Your task to perform on an android device: open app "Google Maps" (install if not already installed) Image 0: 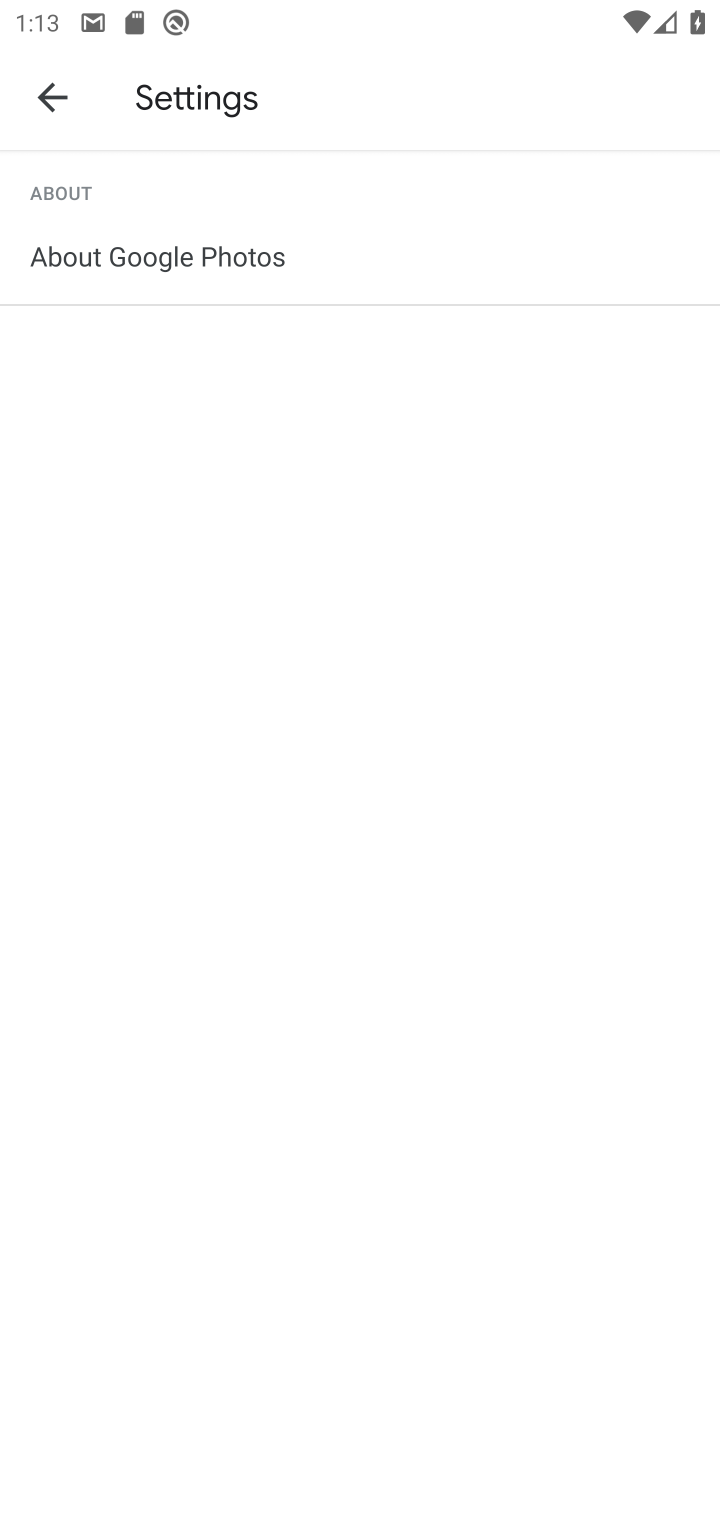
Step 0: press home button
Your task to perform on an android device: open app "Google Maps" (install if not already installed) Image 1: 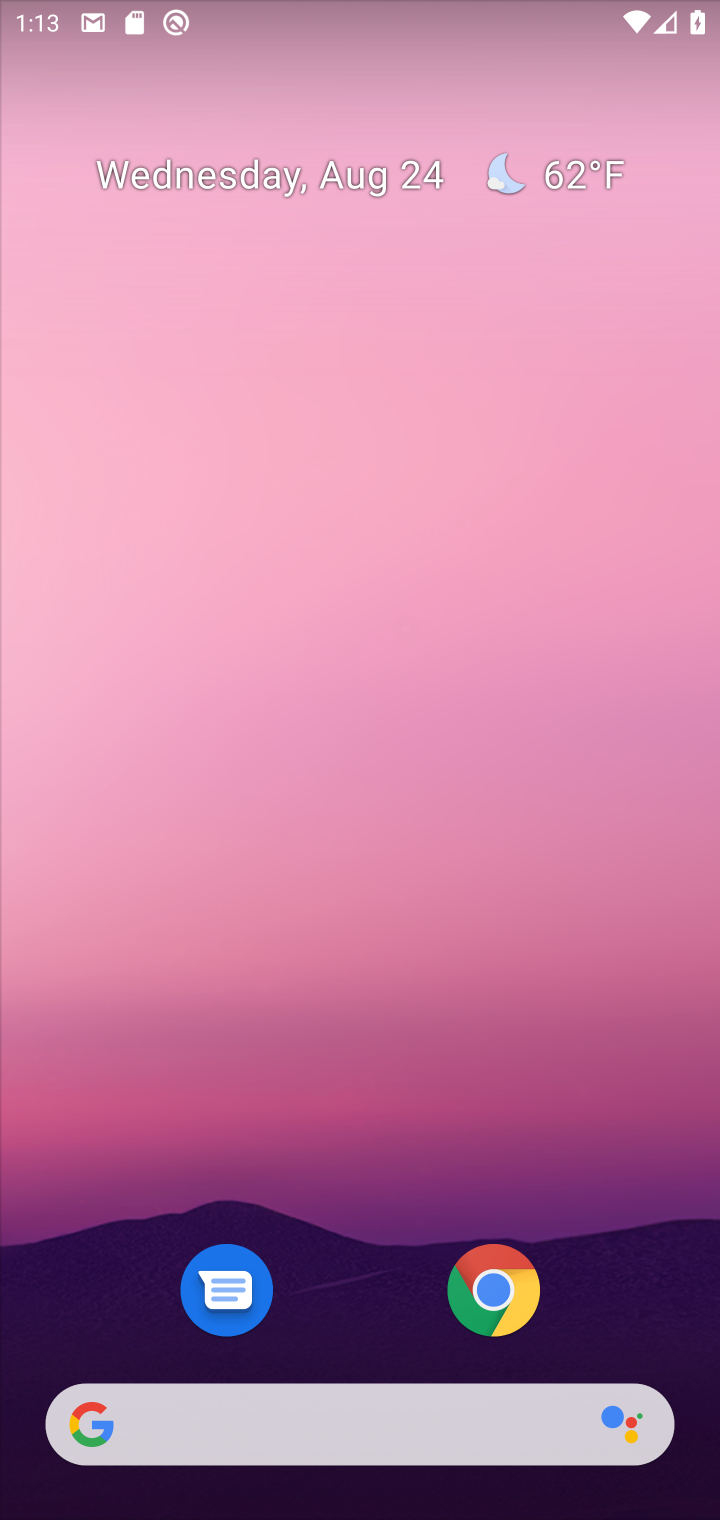
Step 1: click (417, 431)
Your task to perform on an android device: open app "Google Maps" (install if not already installed) Image 2: 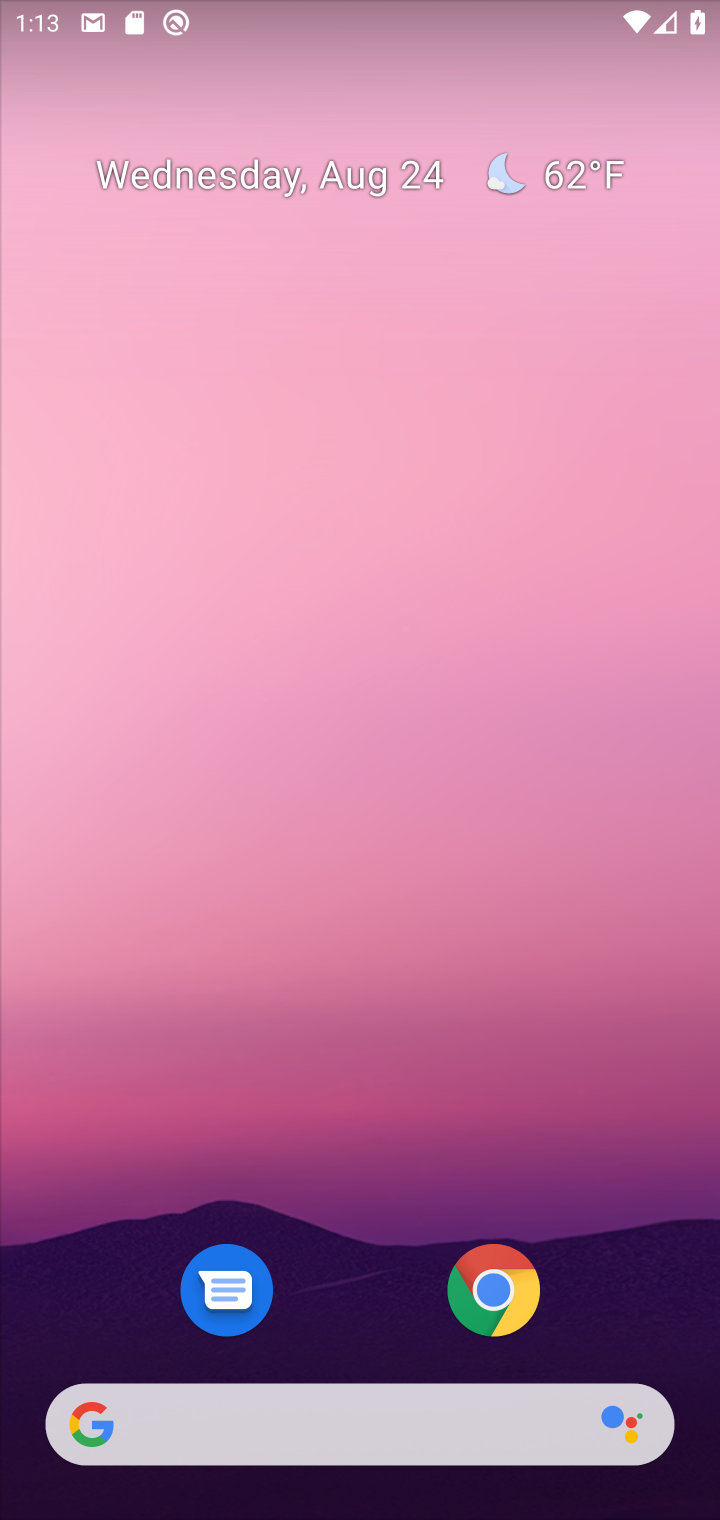
Step 2: drag from (374, 915) to (341, 204)
Your task to perform on an android device: open app "Google Maps" (install if not already installed) Image 3: 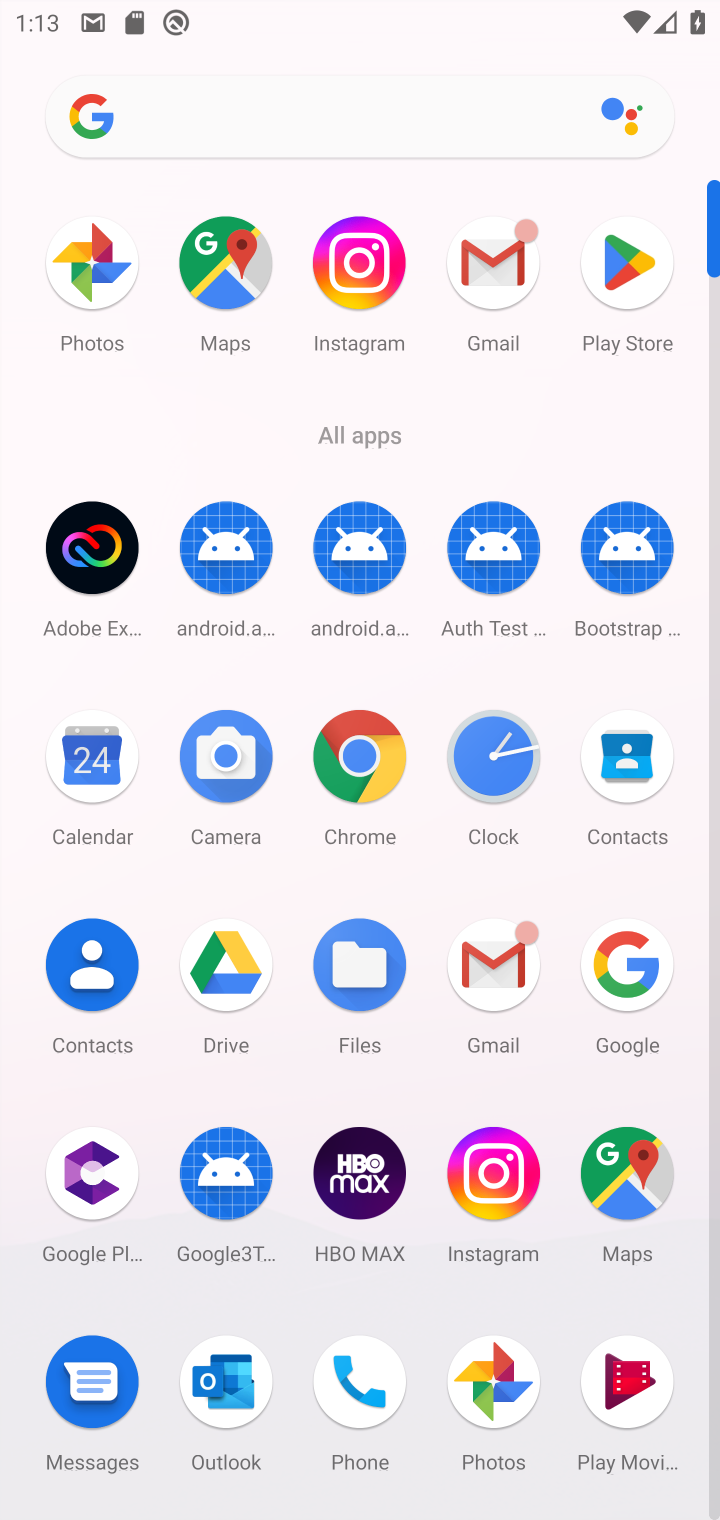
Step 3: click (619, 277)
Your task to perform on an android device: open app "Google Maps" (install if not already installed) Image 4: 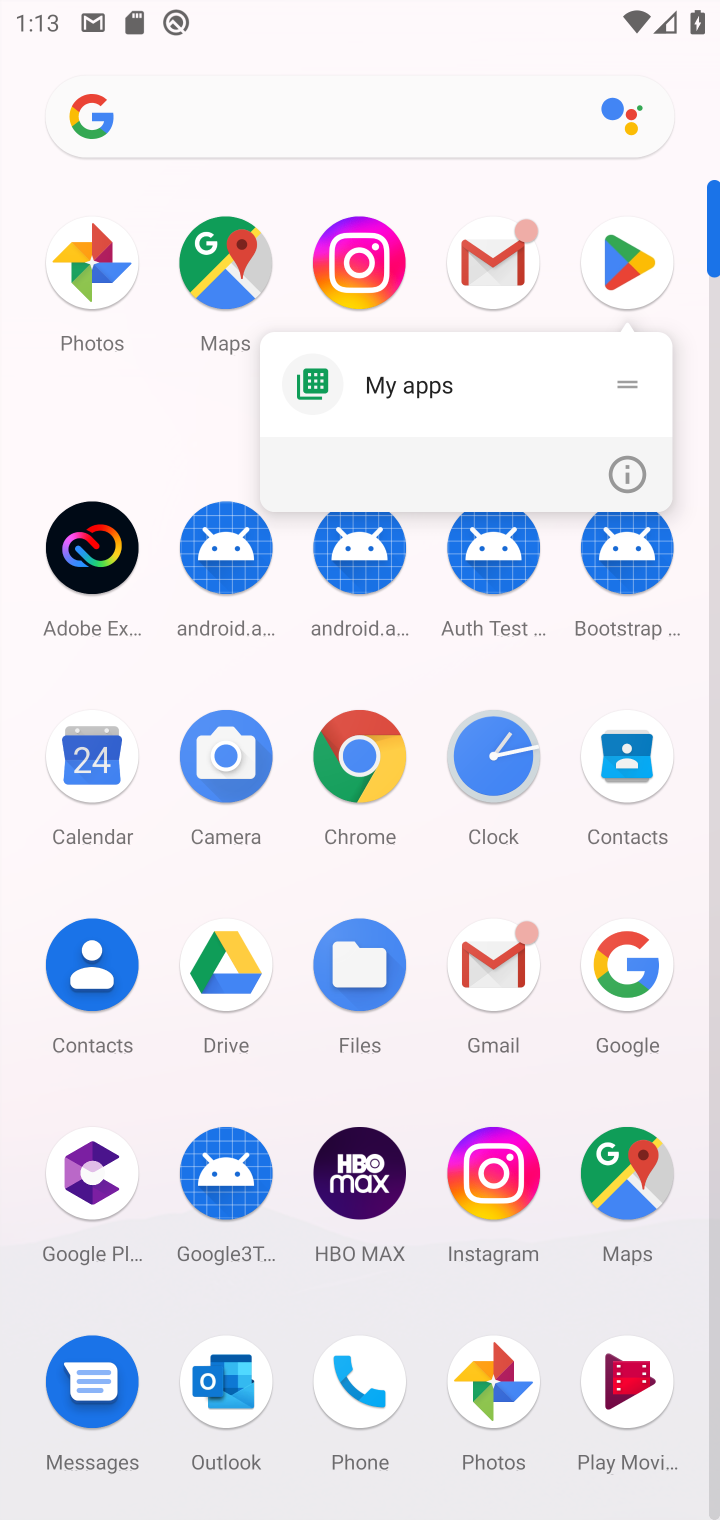
Step 4: click (619, 257)
Your task to perform on an android device: open app "Google Maps" (install if not already installed) Image 5: 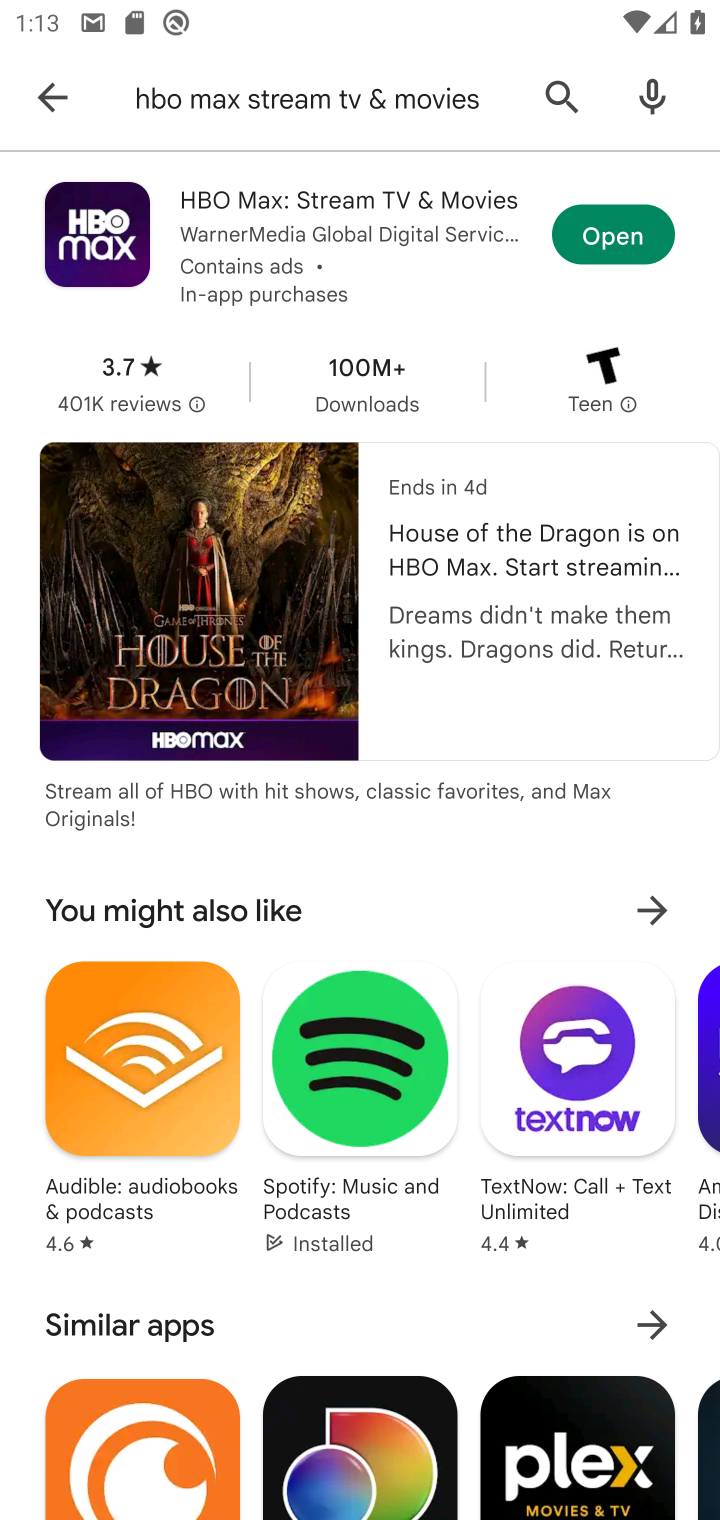
Step 5: click (50, 91)
Your task to perform on an android device: open app "Google Maps" (install if not already installed) Image 6: 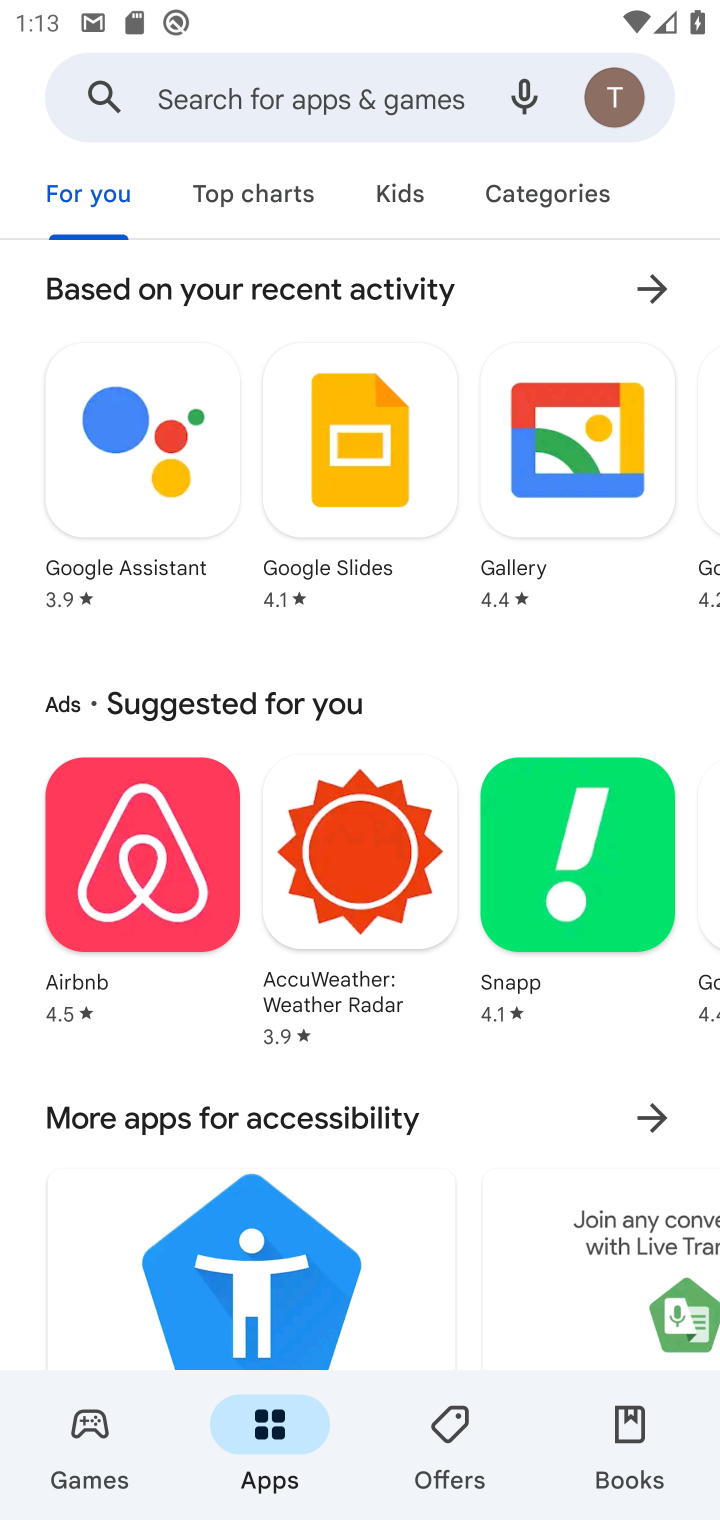
Step 6: click (250, 93)
Your task to perform on an android device: open app "Google Maps" (install if not already installed) Image 7: 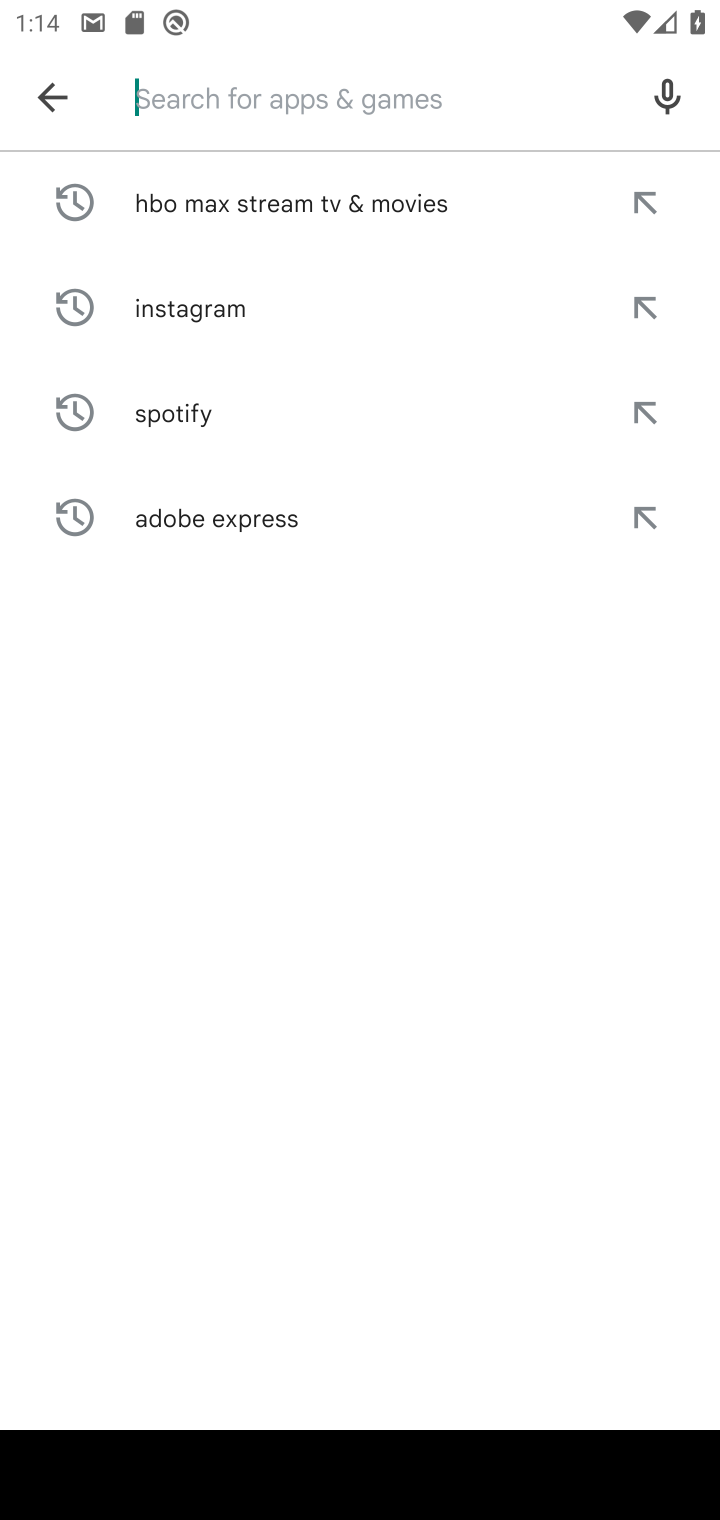
Step 7: type "Google Maps"
Your task to perform on an android device: open app "Google Maps" (install if not already installed) Image 8: 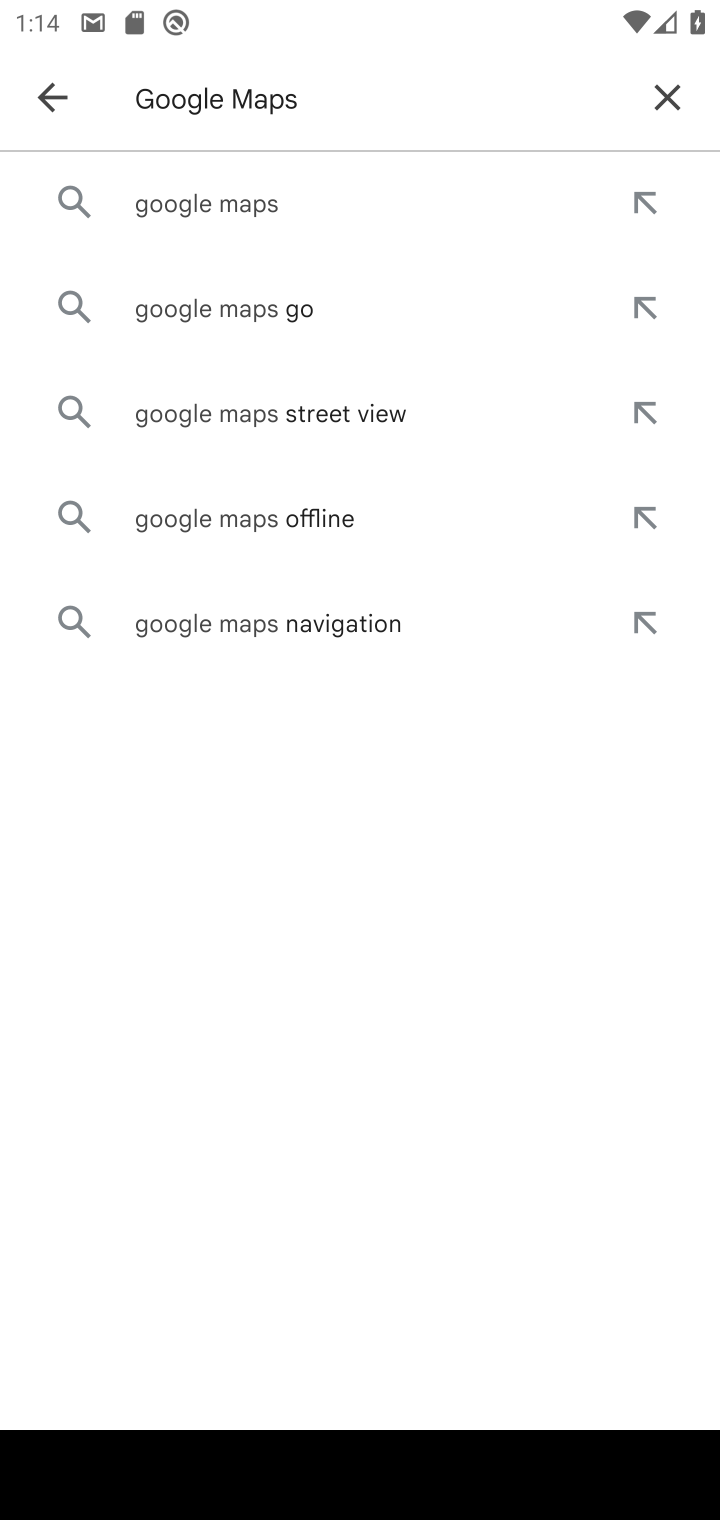
Step 8: click (197, 207)
Your task to perform on an android device: open app "Google Maps" (install if not already installed) Image 9: 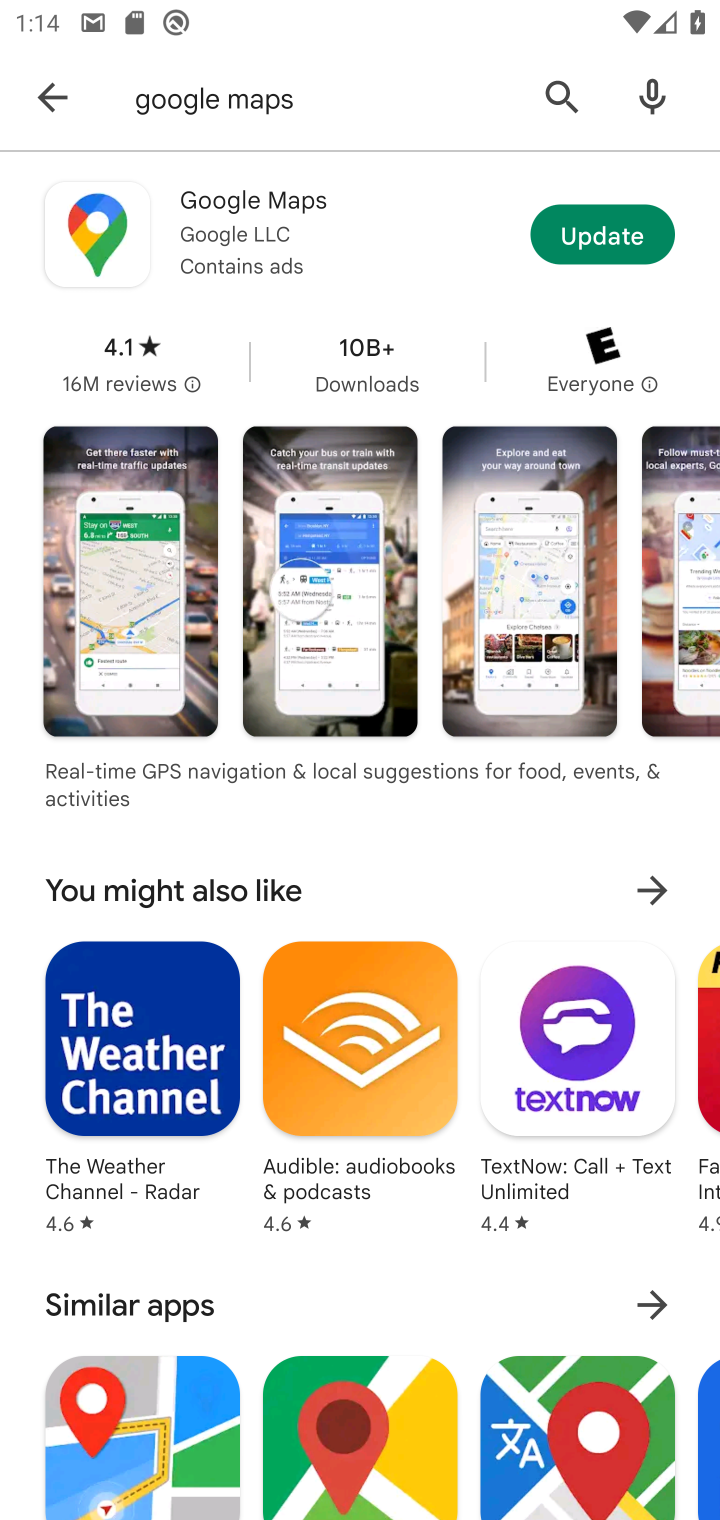
Step 9: click (590, 234)
Your task to perform on an android device: open app "Google Maps" (install if not already installed) Image 10: 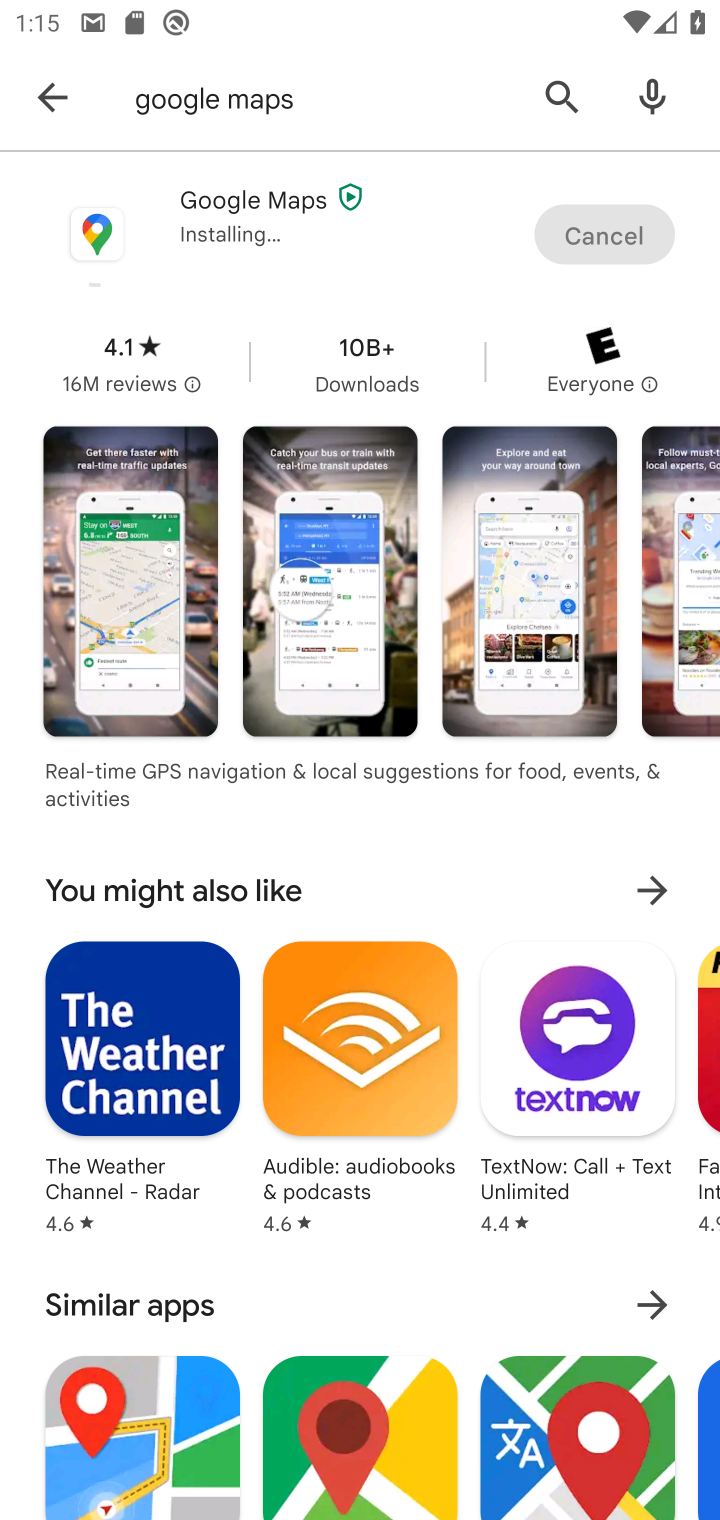
Step 10: click (334, 282)
Your task to perform on an android device: open app "Google Maps" (install if not already installed) Image 11: 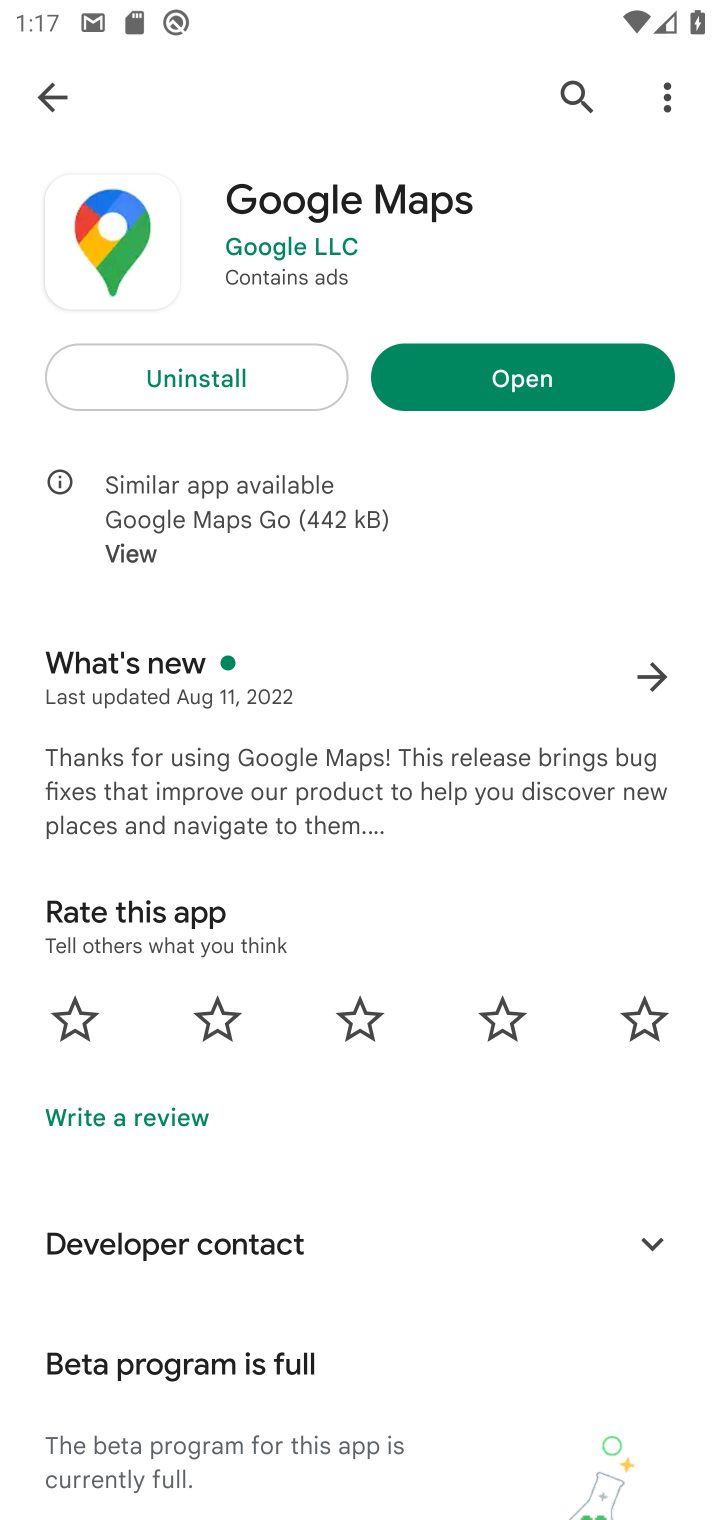
Step 11: click (517, 400)
Your task to perform on an android device: open app "Google Maps" (install if not already installed) Image 12: 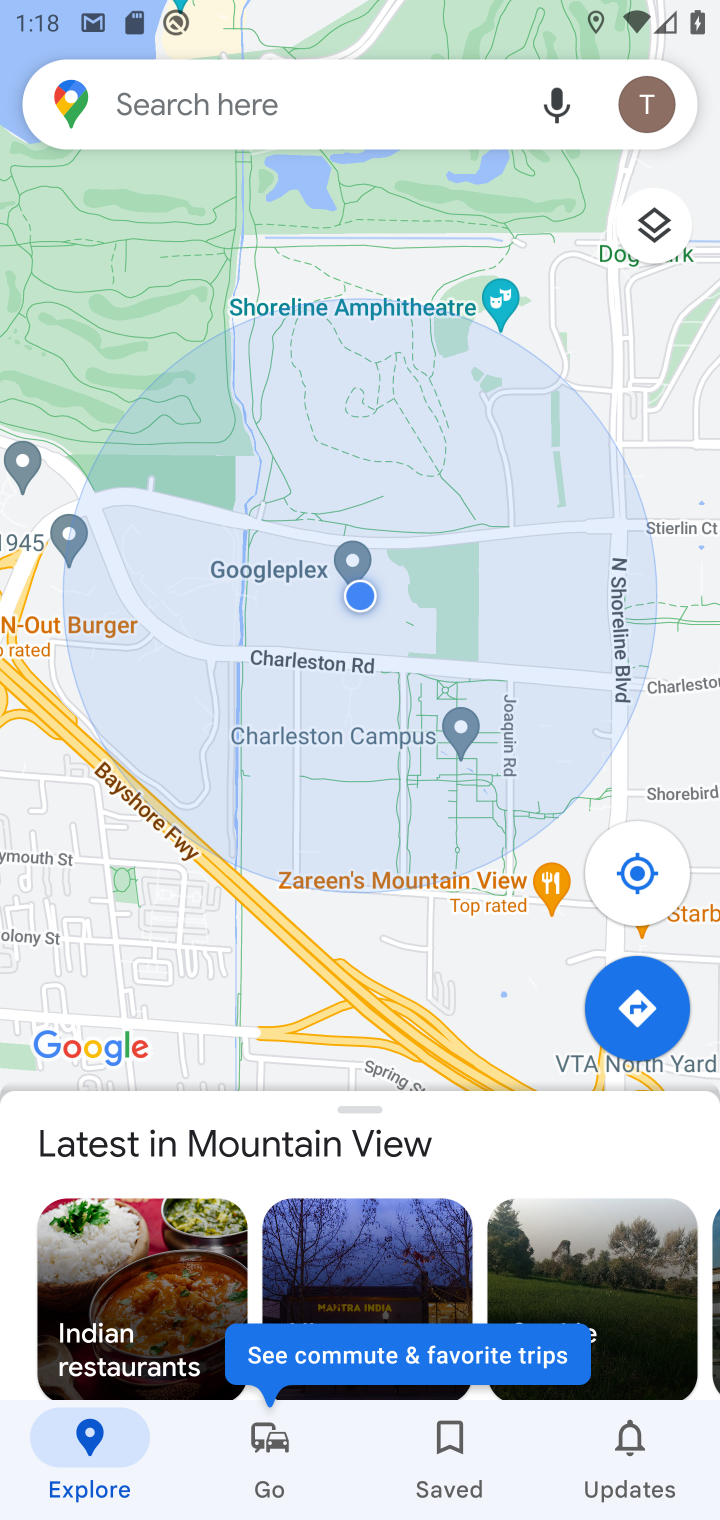
Step 12: task complete